Your task to perform on an android device: Is it going to rain today? Image 0: 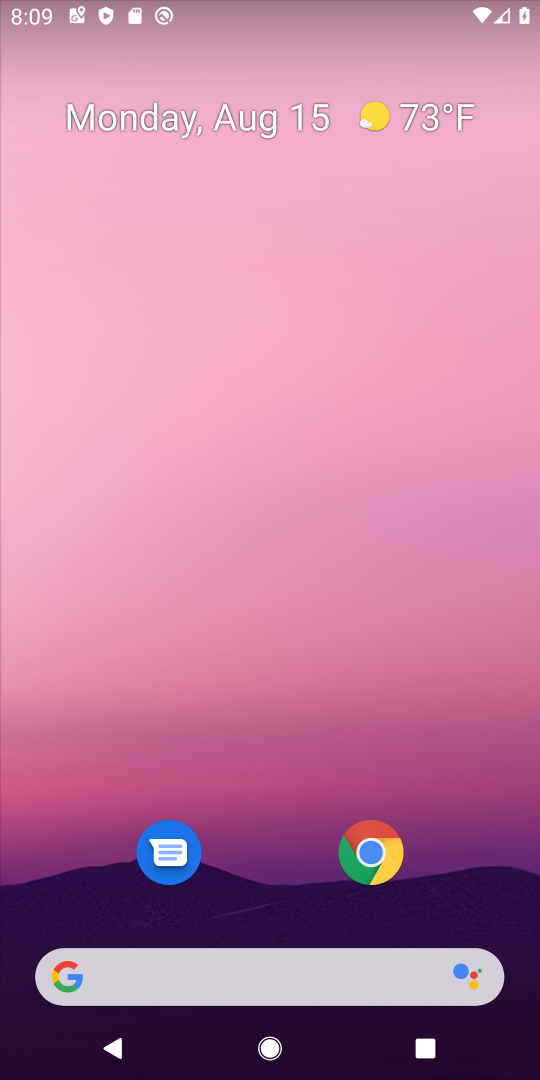
Step 0: drag from (242, 989) to (243, 196)
Your task to perform on an android device: Is it going to rain today? Image 1: 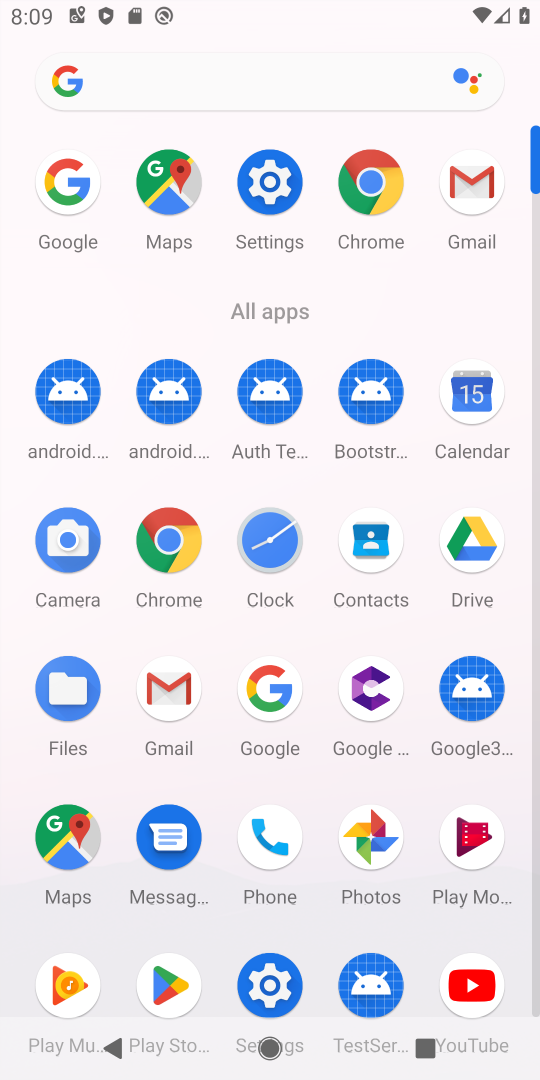
Step 1: click (60, 178)
Your task to perform on an android device: Is it going to rain today? Image 2: 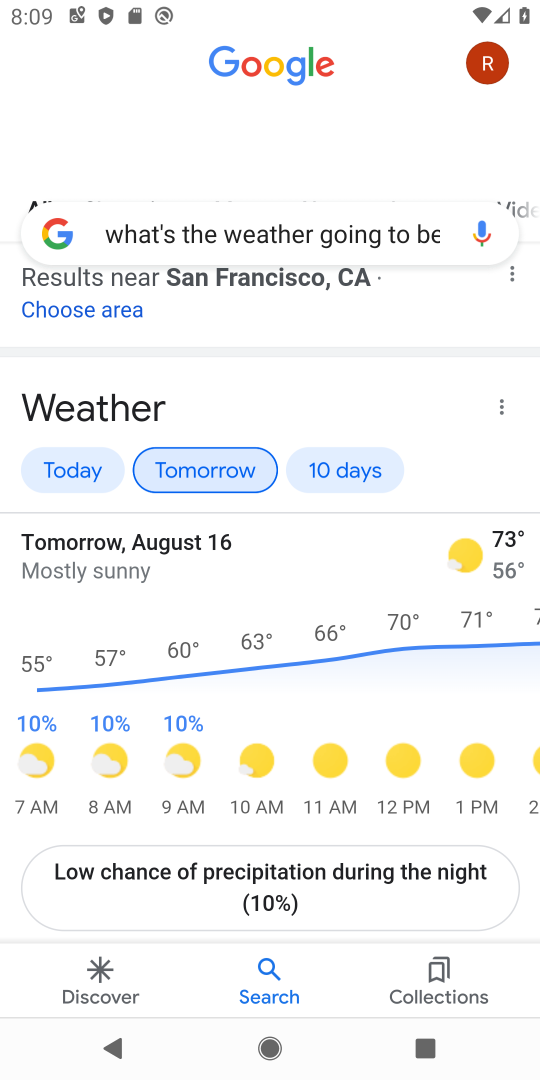
Step 2: click (401, 234)
Your task to perform on an android device: Is it going to rain today? Image 3: 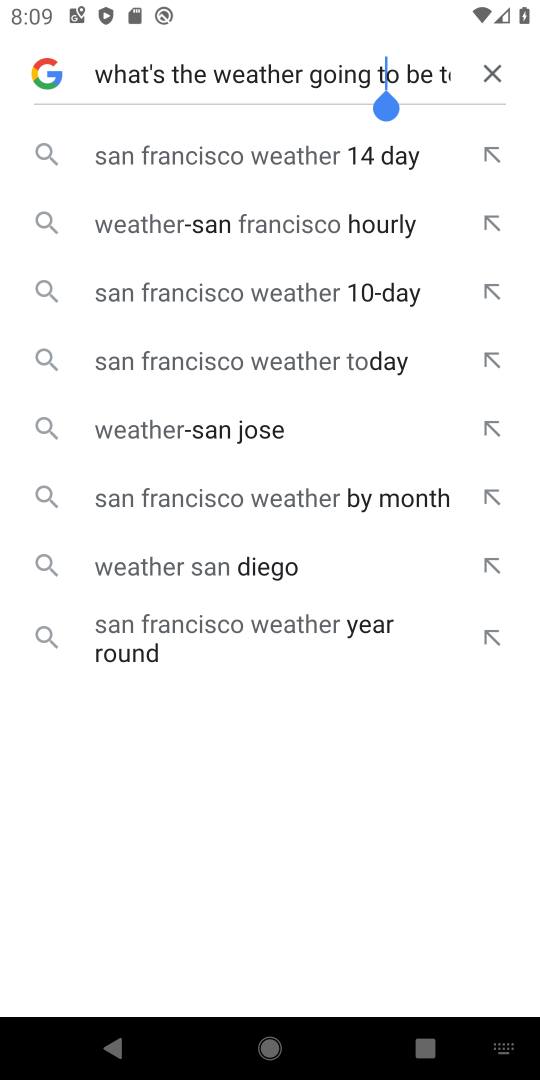
Step 3: click (493, 77)
Your task to perform on an android device: Is it going to rain today? Image 4: 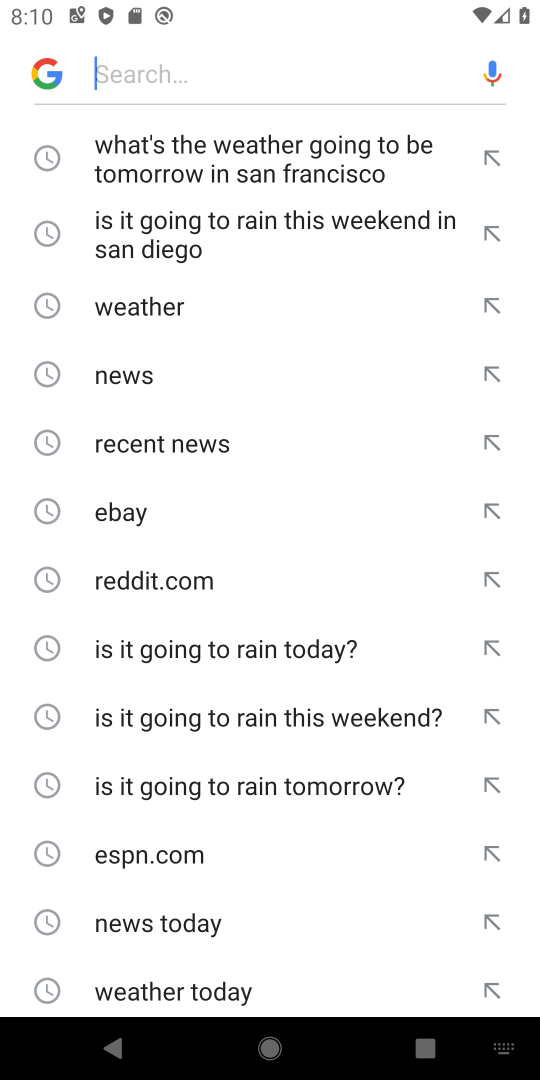
Step 4: type "is it going to rain today?"
Your task to perform on an android device: Is it going to rain today? Image 5: 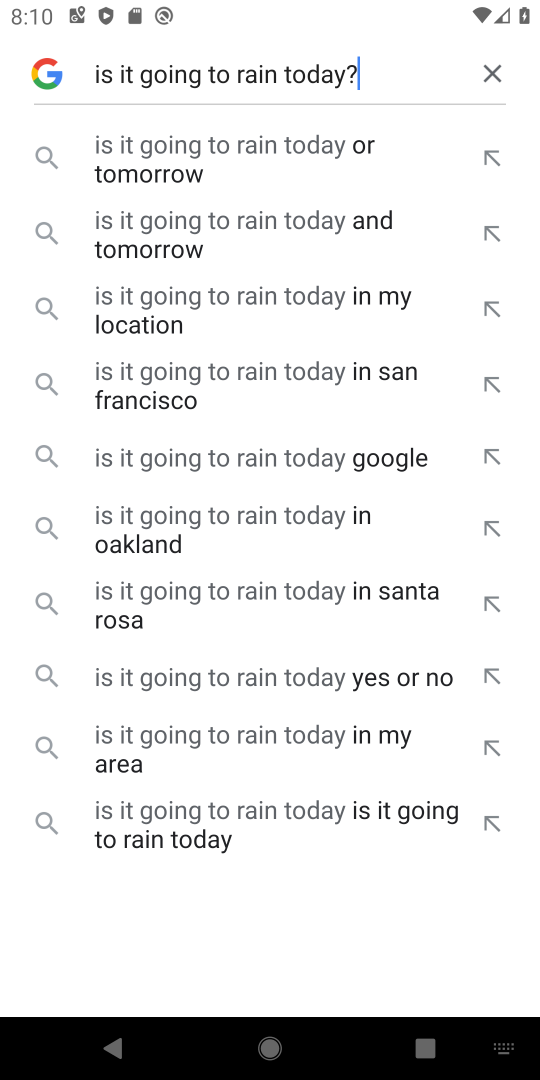
Step 5: click (236, 159)
Your task to perform on an android device: Is it going to rain today? Image 6: 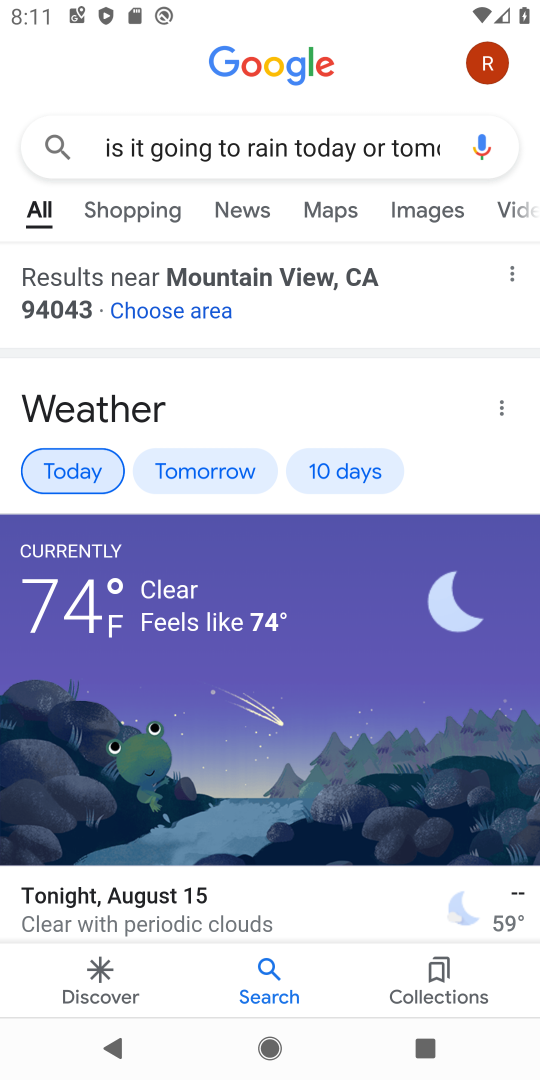
Step 6: task complete